Your task to perform on an android device: Open Google Chrome and click the shortcut for Amazon.com Image 0: 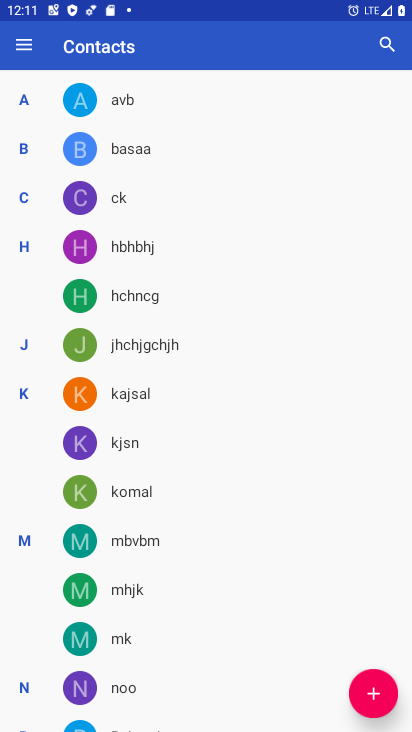
Step 0: press home button
Your task to perform on an android device: Open Google Chrome and click the shortcut for Amazon.com Image 1: 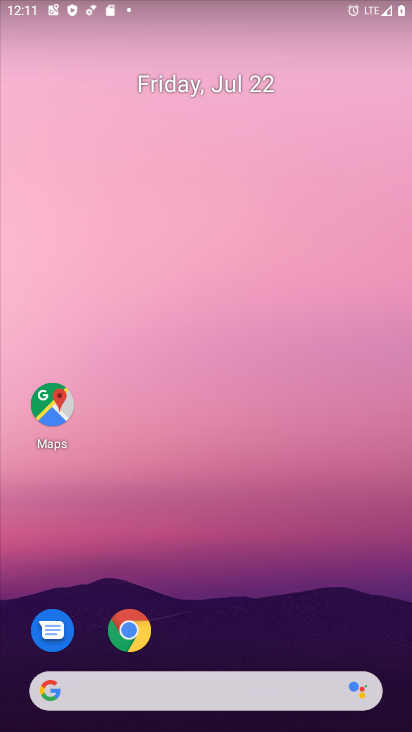
Step 1: click (136, 634)
Your task to perform on an android device: Open Google Chrome and click the shortcut for Amazon.com Image 2: 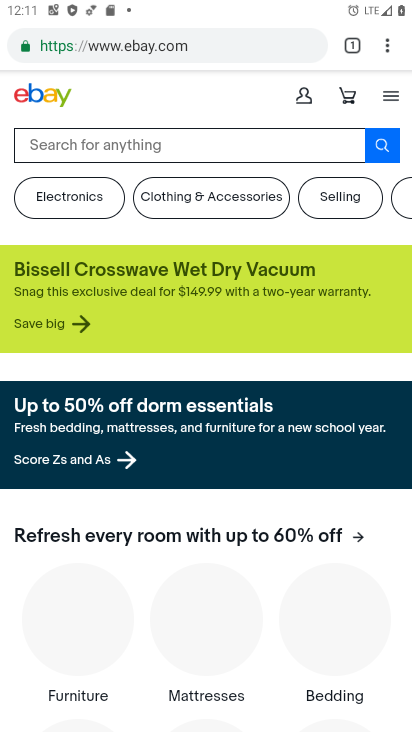
Step 2: click (358, 38)
Your task to perform on an android device: Open Google Chrome and click the shortcut for Amazon.com Image 3: 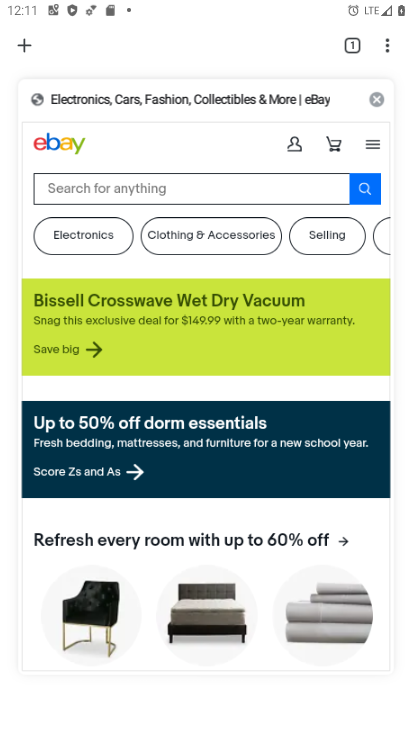
Step 3: click (18, 39)
Your task to perform on an android device: Open Google Chrome and click the shortcut for Amazon.com Image 4: 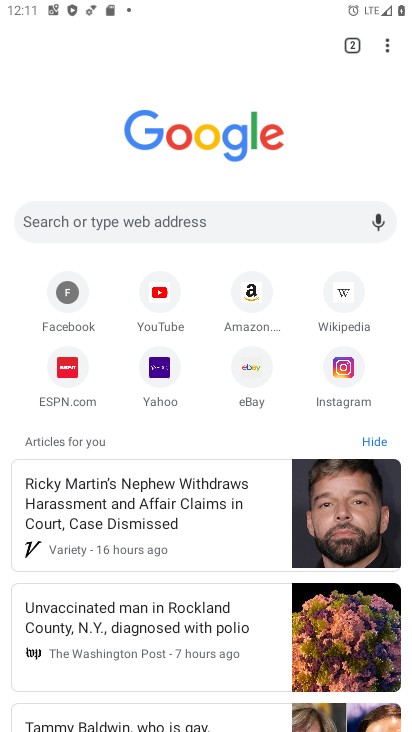
Step 4: click (262, 288)
Your task to perform on an android device: Open Google Chrome and click the shortcut for Amazon.com Image 5: 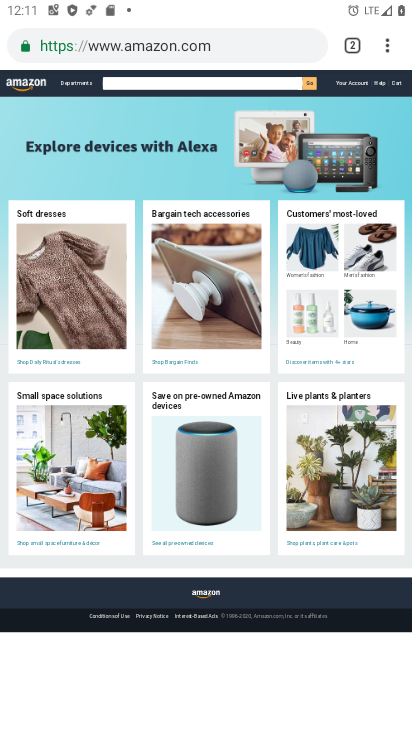
Step 5: task complete